Your task to perform on an android device: turn off javascript in the chrome app Image 0: 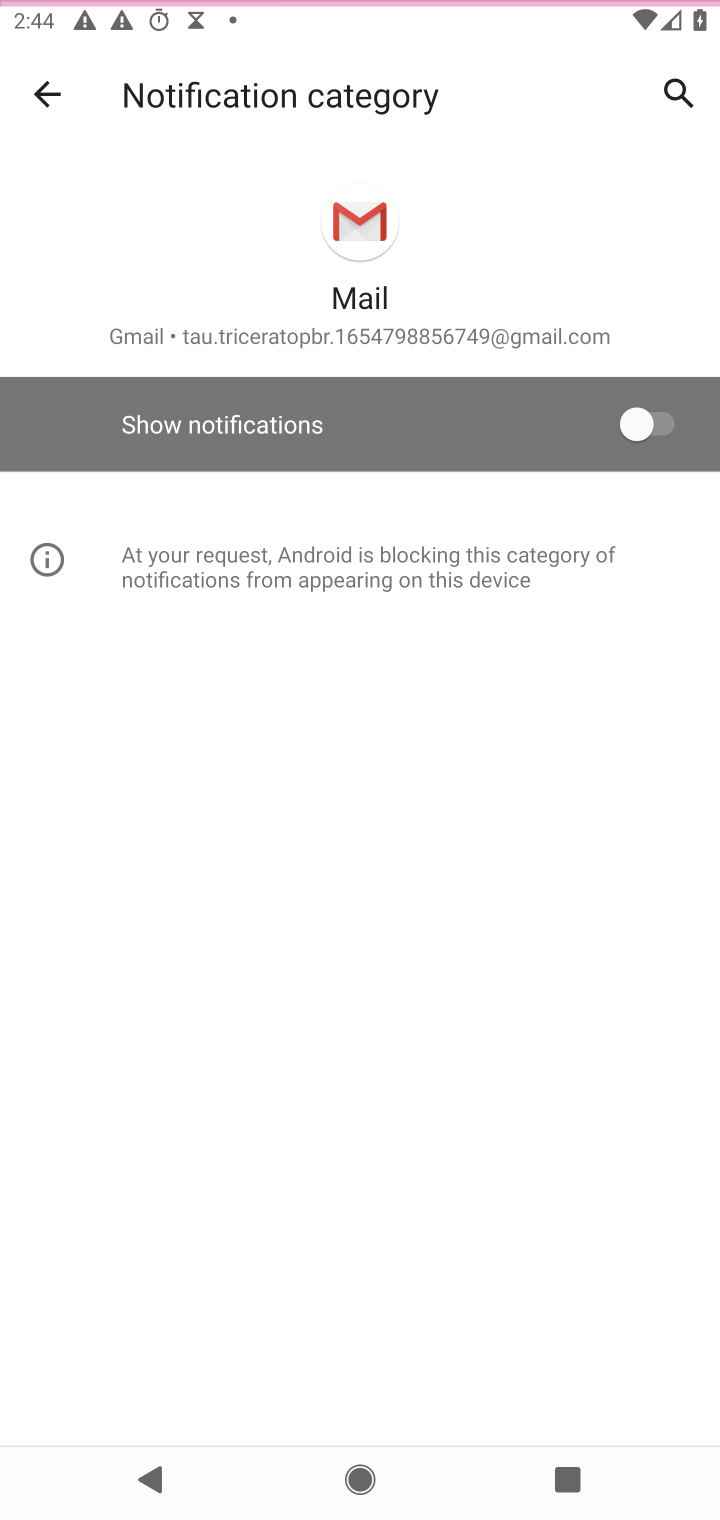
Step 0: press home button
Your task to perform on an android device: turn off javascript in the chrome app Image 1: 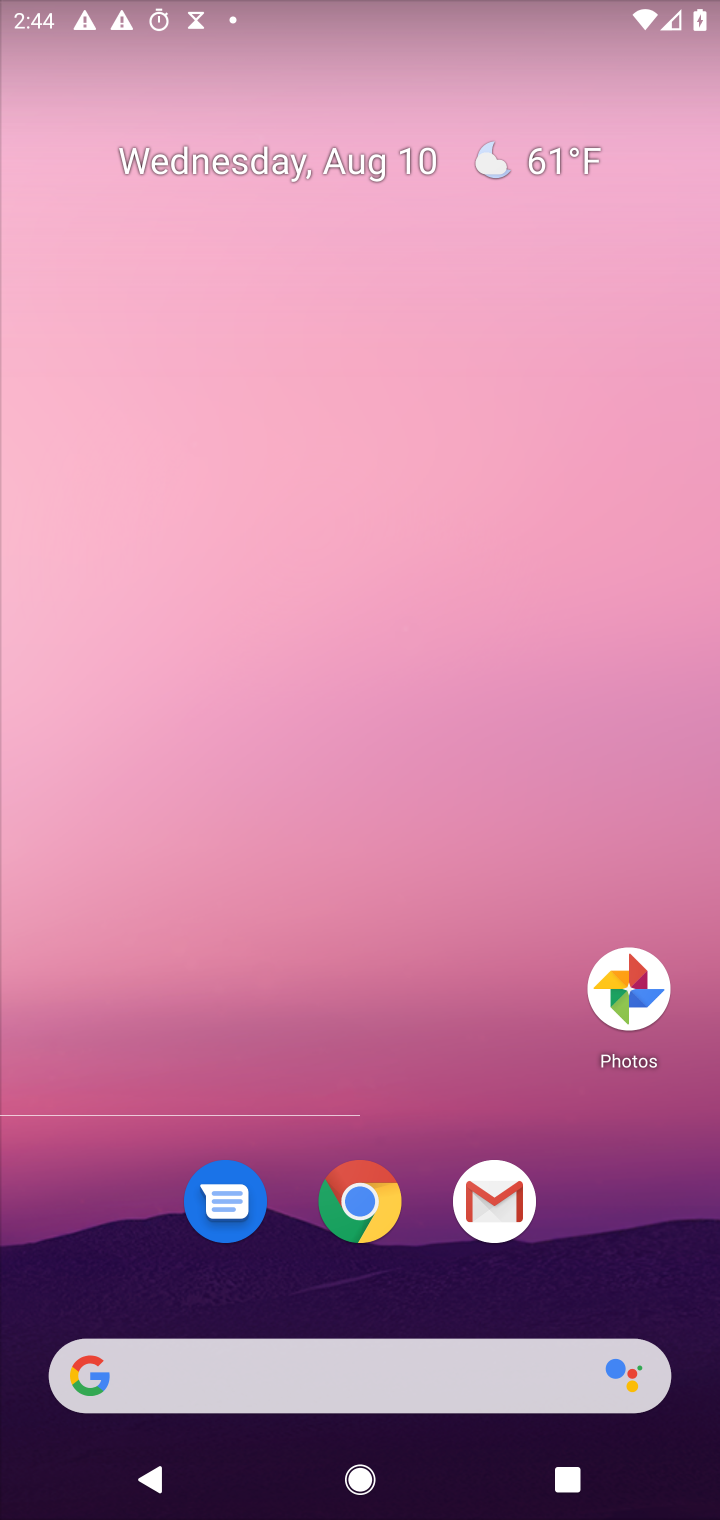
Step 1: click (354, 1201)
Your task to perform on an android device: turn off javascript in the chrome app Image 2: 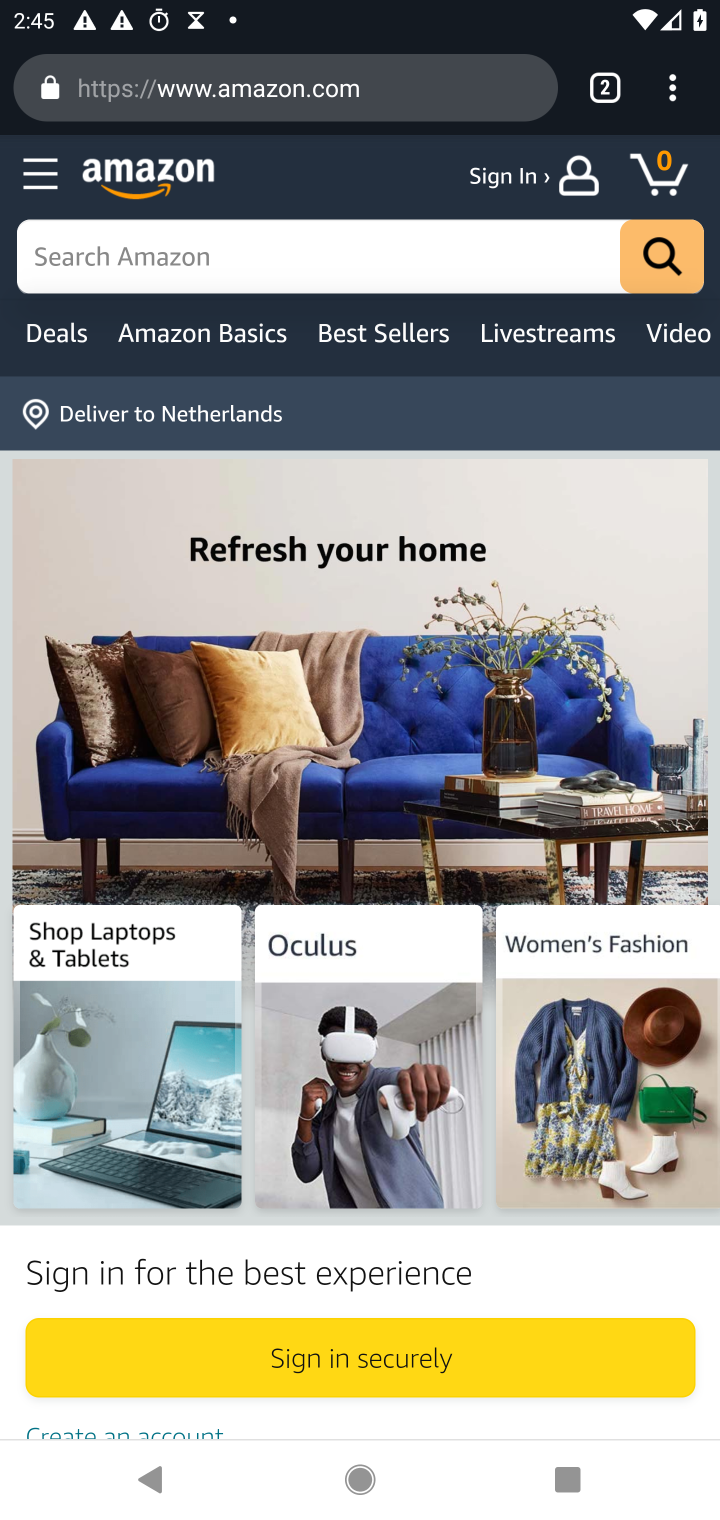
Step 2: drag from (675, 91) to (391, 1063)
Your task to perform on an android device: turn off javascript in the chrome app Image 3: 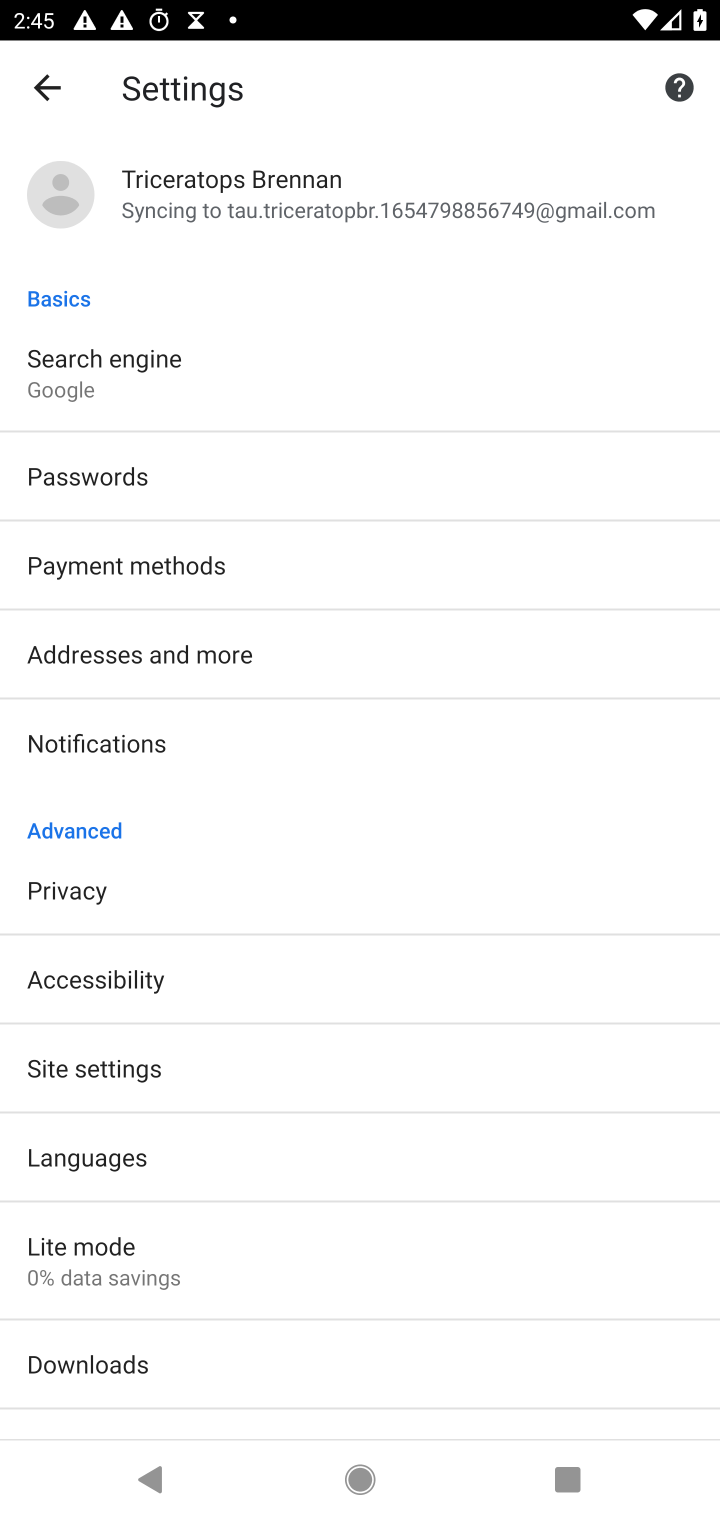
Step 3: click (96, 1077)
Your task to perform on an android device: turn off javascript in the chrome app Image 4: 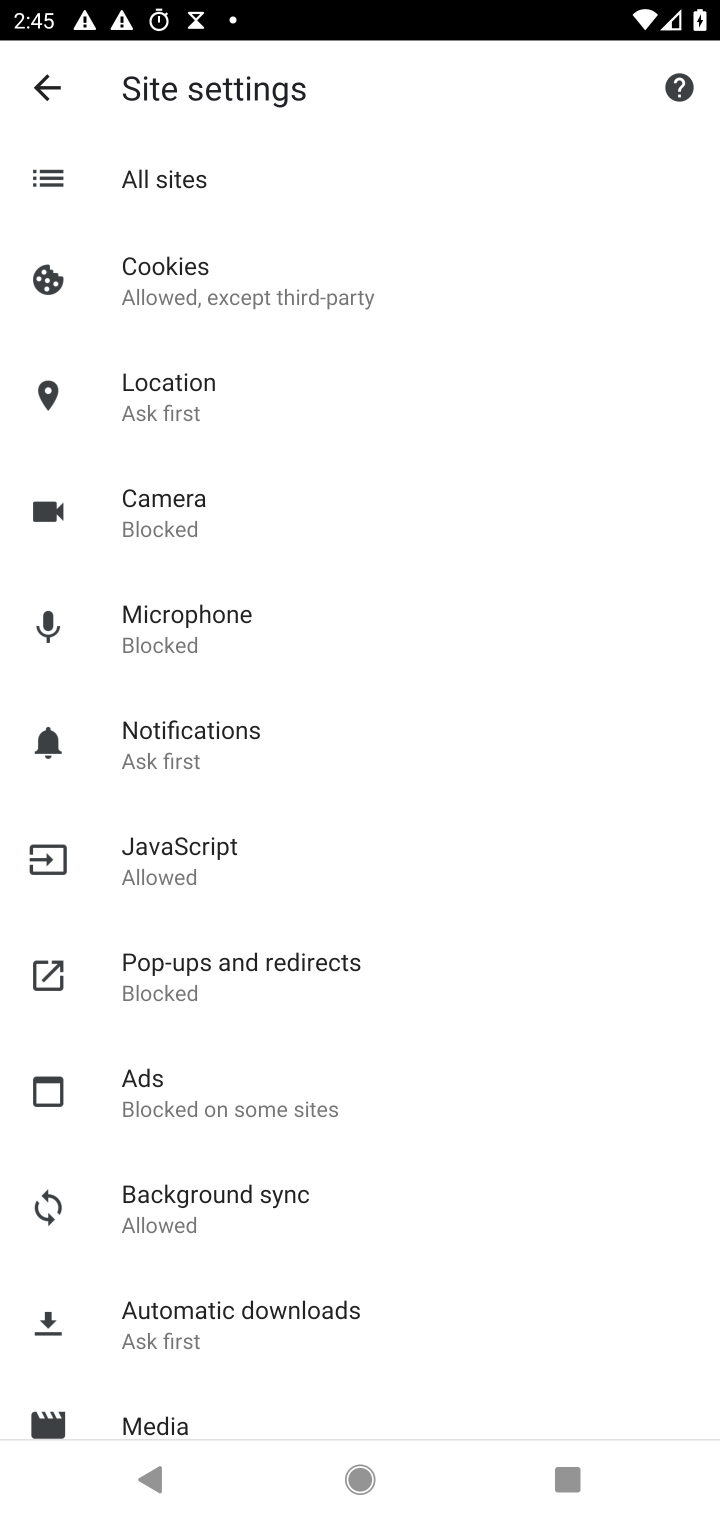
Step 4: click (193, 845)
Your task to perform on an android device: turn off javascript in the chrome app Image 5: 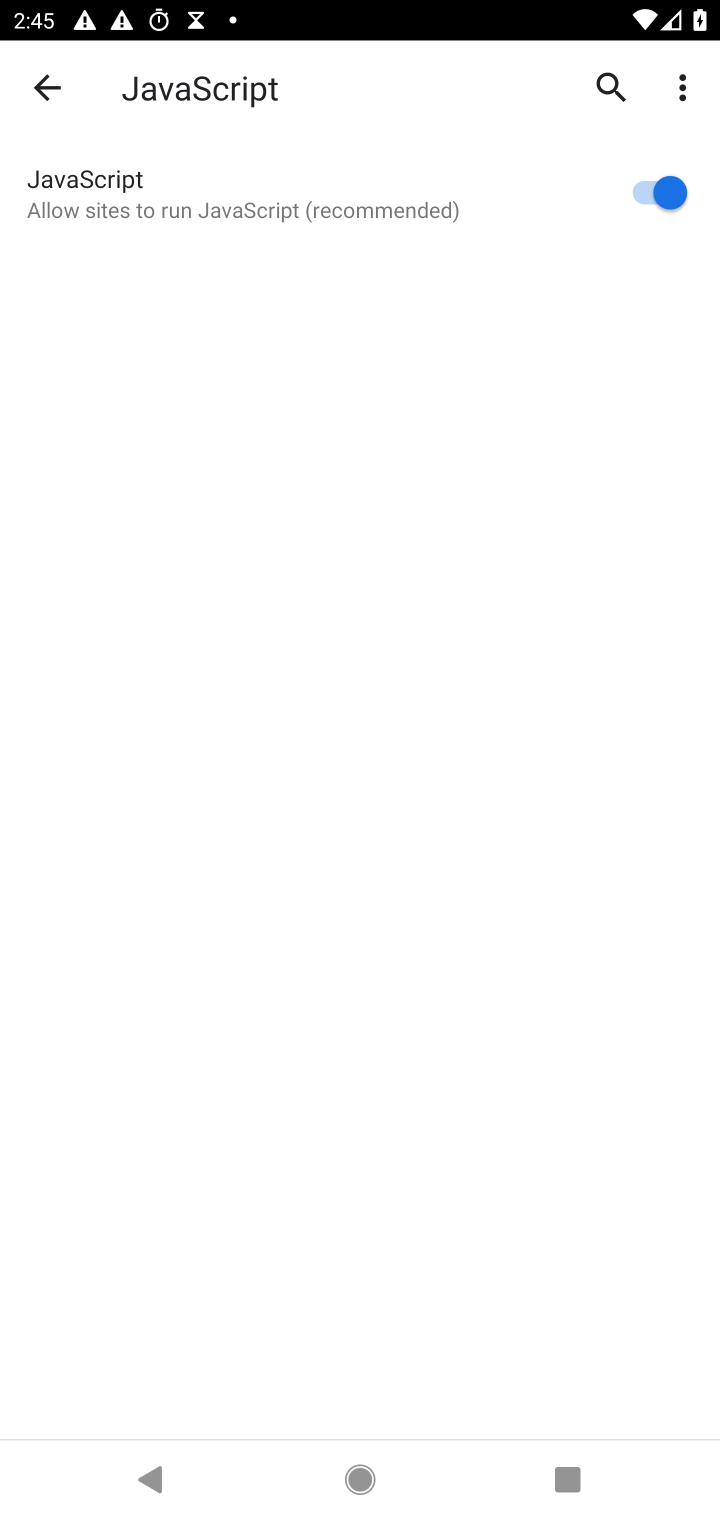
Step 5: click (686, 206)
Your task to perform on an android device: turn off javascript in the chrome app Image 6: 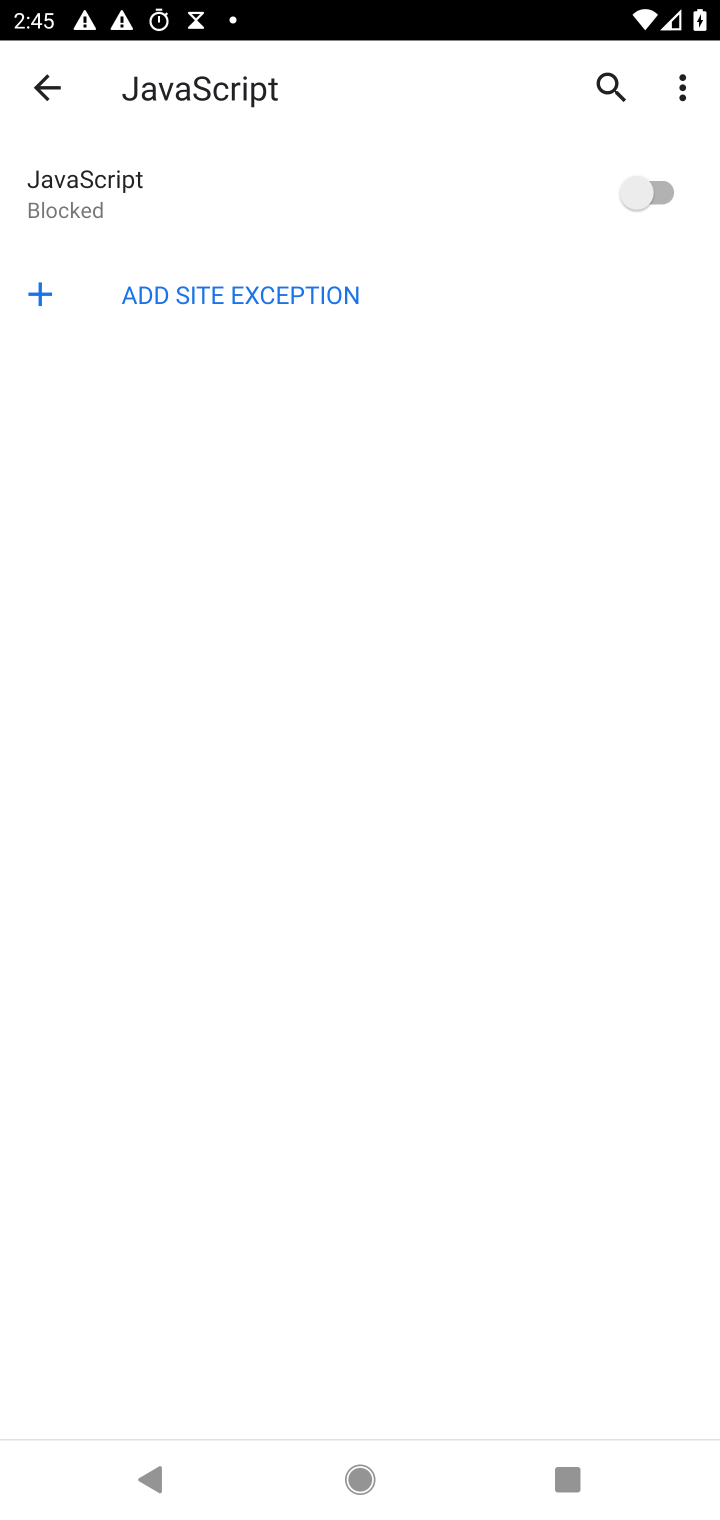
Step 6: task complete